Your task to perform on an android device: empty trash in the gmail app Image 0: 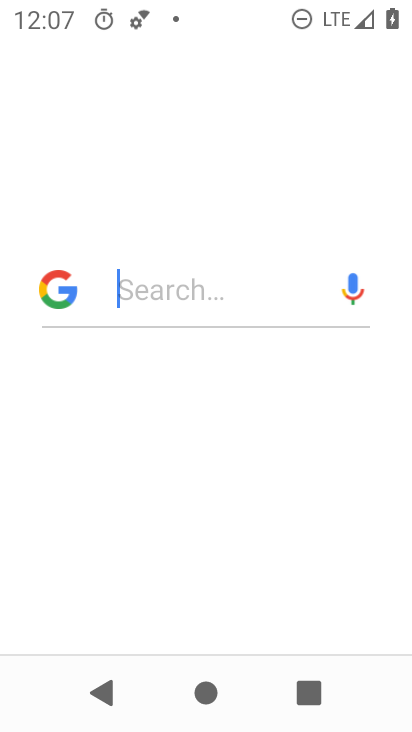
Step 0: drag from (199, 522) to (399, 243)
Your task to perform on an android device: empty trash in the gmail app Image 1: 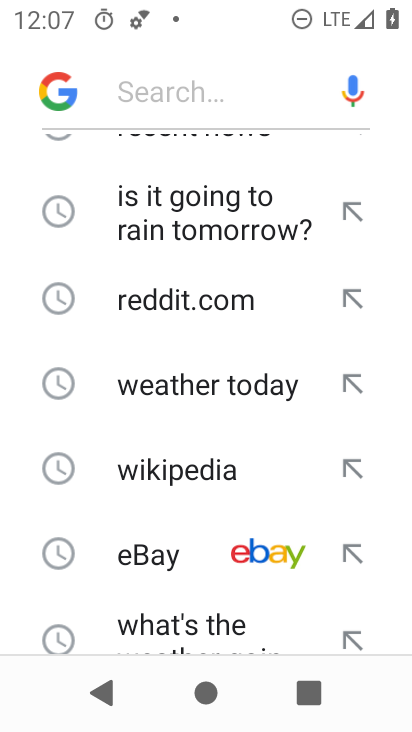
Step 1: press home button
Your task to perform on an android device: empty trash in the gmail app Image 2: 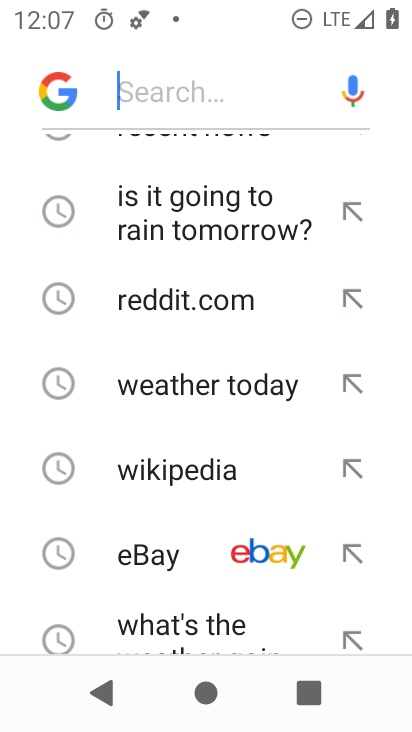
Step 2: drag from (399, 243) to (409, 479)
Your task to perform on an android device: empty trash in the gmail app Image 3: 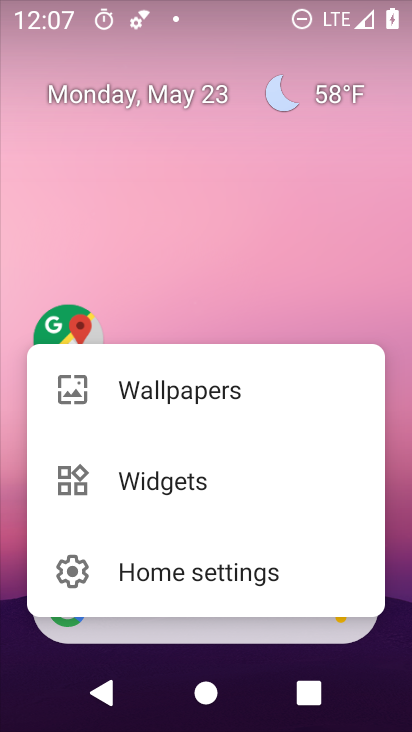
Step 3: drag from (208, 534) to (229, 153)
Your task to perform on an android device: empty trash in the gmail app Image 4: 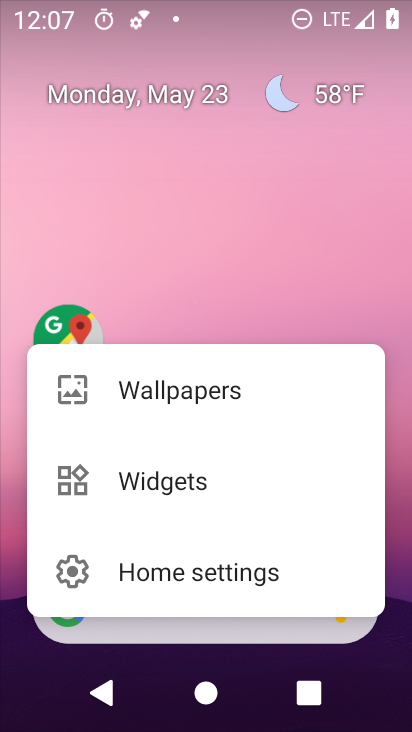
Step 4: click (293, 253)
Your task to perform on an android device: empty trash in the gmail app Image 5: 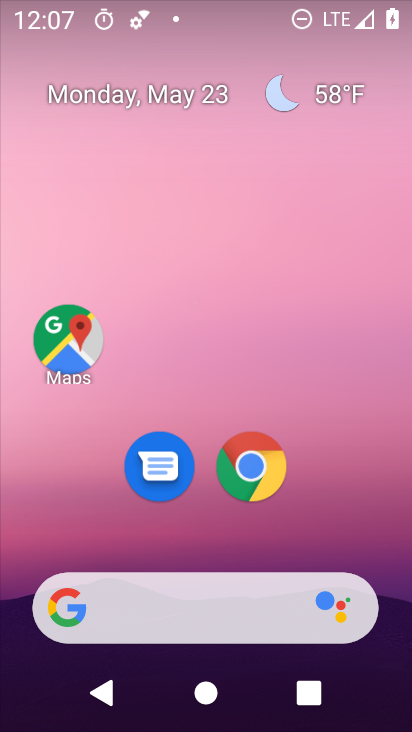
Step 5: drag from (182, 543) to (180, 78)
Your task to perform on an android device: empty trash in the gmail app Image 6: 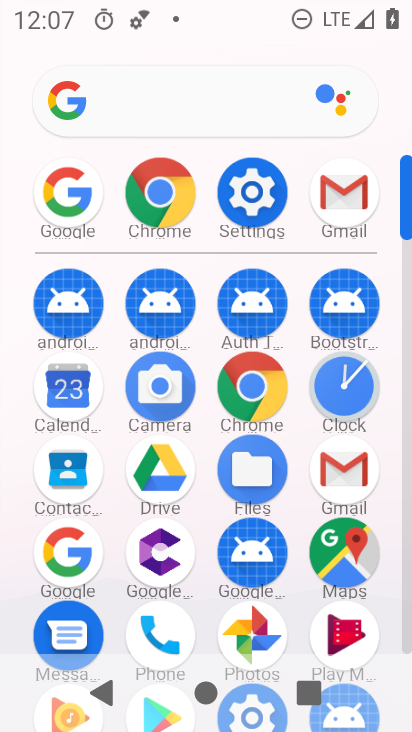
Step 6: click (336, 192)
Your task to perform on an android device: empty trash in the gmail app Image 7: 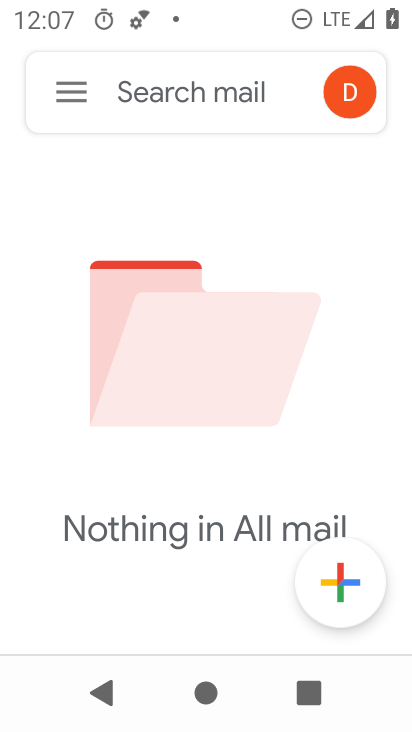
Step 7: click (60, 97)
Your task to perform on an android device: empty trash in the gmail app Image 8: 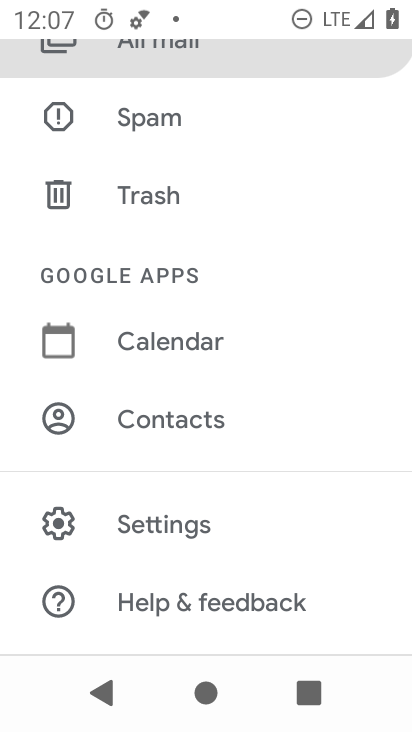
Step 8: click (163, 193)
Your task to perform on an android device: empty trash in the gmail app Image 9: 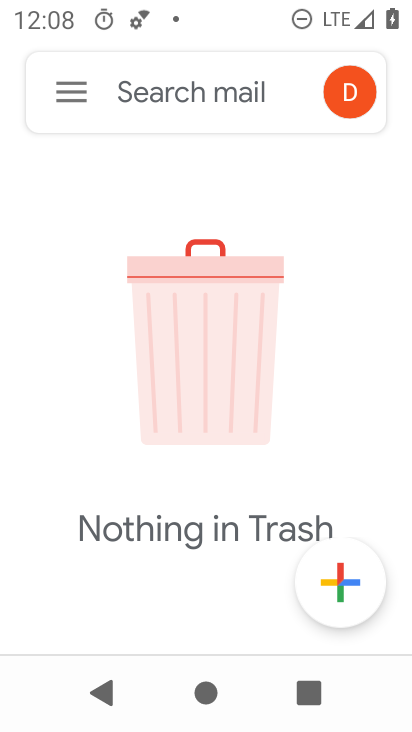
Step 9: task complete